Your task to perform on an android device: Open the calendar app, open the side menu, and click the "Day" option Image 0: 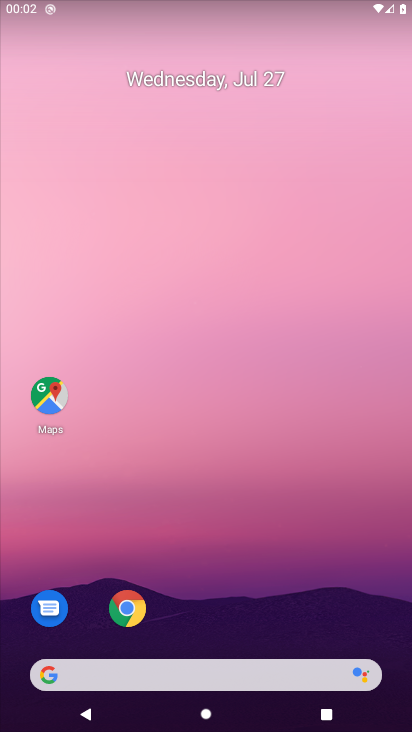
Step 0: press home button
Your task to perform on an android device: Open the calendar app, open the side menu, and click the "Day" option Image 1: 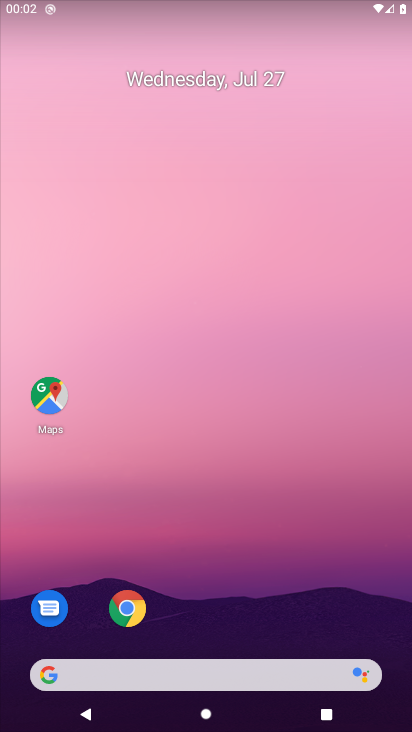
Step 1: drag from (337, 589) to (386, 112)
Your task to perform on an android device: Open the calendar app, open the side menu, and click the "Day" option Image 2: 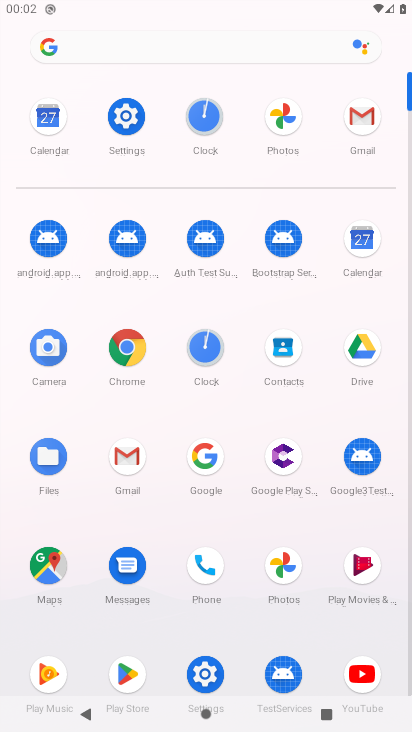
Step 2: click (367, 243)
Your task to perform on an android device: Open the calendar app, open the side menu, and click the "Day" option Image 3: 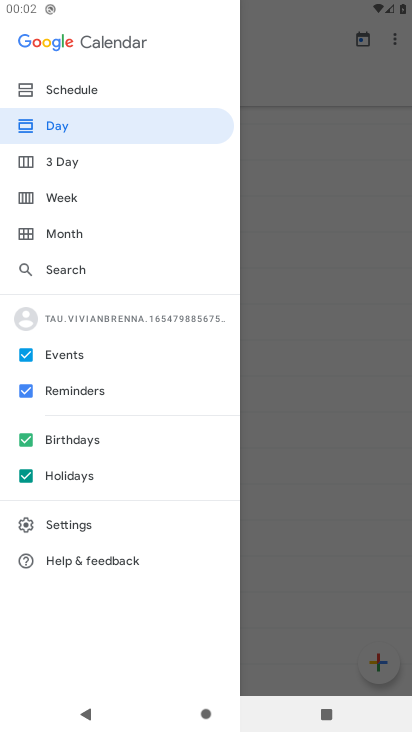
Step 3: click (114, 127)
Your task to perform on an android device: Open the calendar app, open the side menu, and click the "Day" option Image 4: 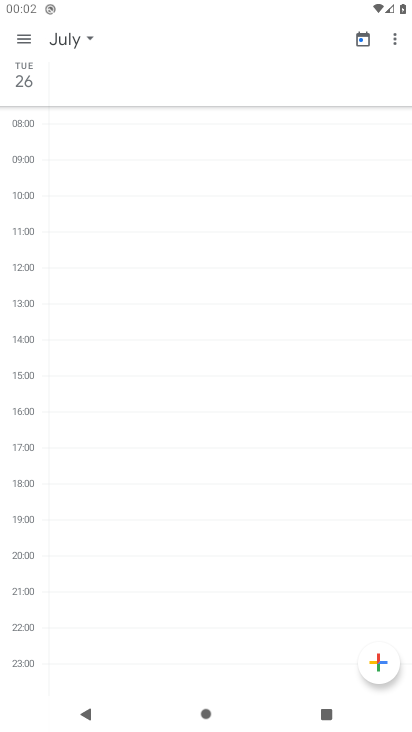
Step 4: task complete